Your task to perform on an android device: turn on data saver in the chrome app Image 0: 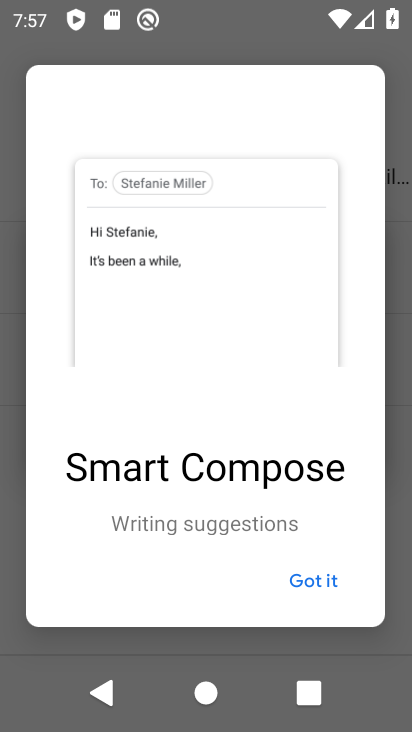
Step 0: press home button
Your task to perform on an android device: turn on data saver in the chrome app Image 1: 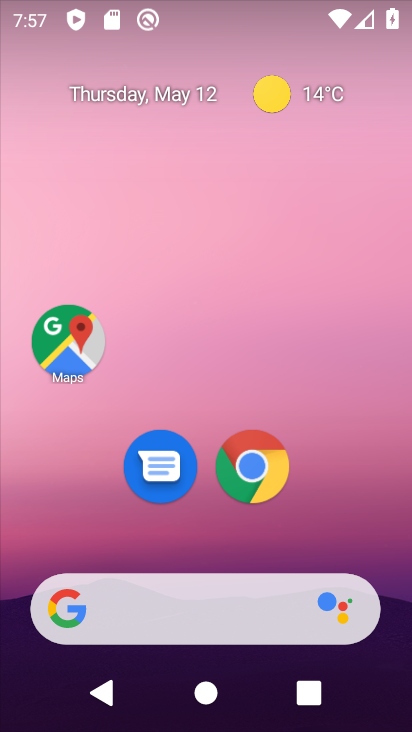
Step 1: click (251, 459)
Your task to perform on an android device: turn on data saver in the chrome app Image 2: 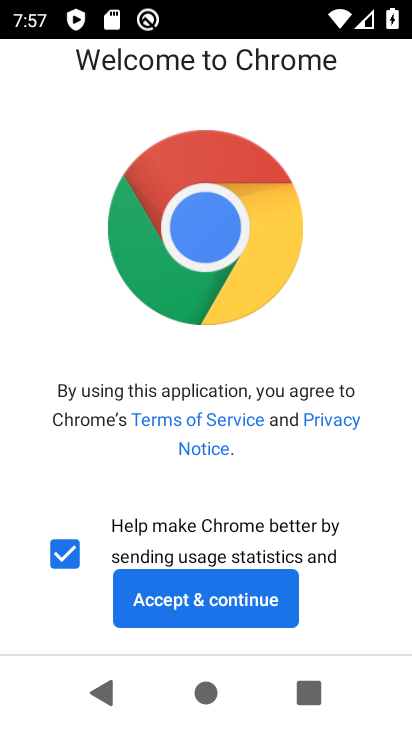
Step 2: click (197, 603)
Your task to perform on an android device: turn on data saver in the chrome app Image 3: 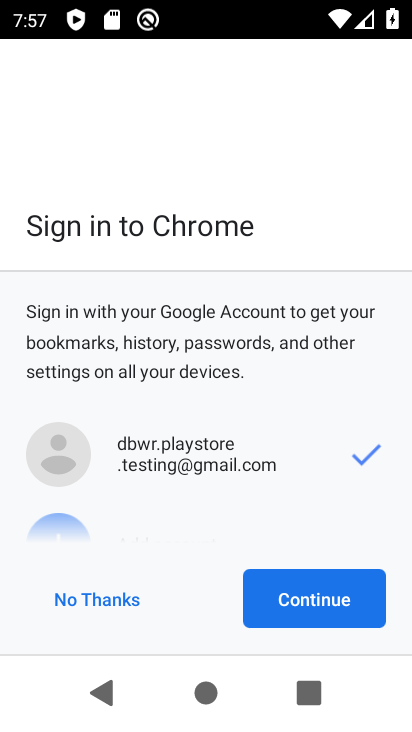
Step 3: click (321, 594)
Your task to perform on an android device: turn on data saver in the chrome app Image 4: 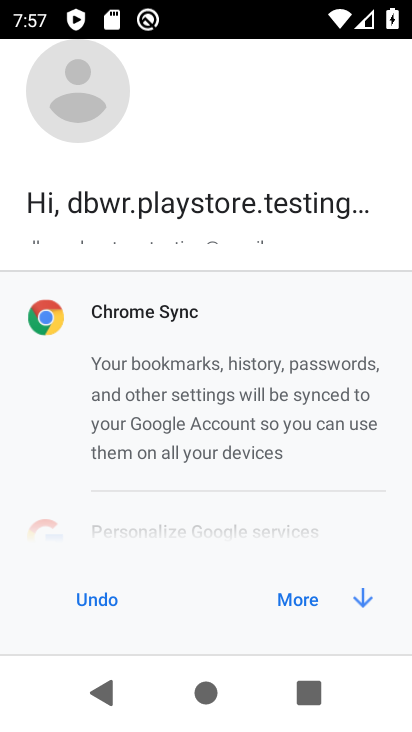
Step 4: click (313, 600)
Your task to perform on an android device: turn on data saver in the chrome app Image 5: 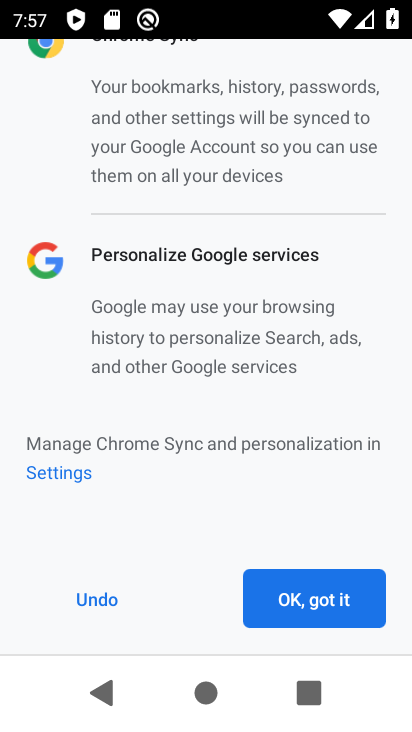
Step 5: click (313, 600)
Your task to perform on an android device: turn on data saver in the chrome app Image 6: 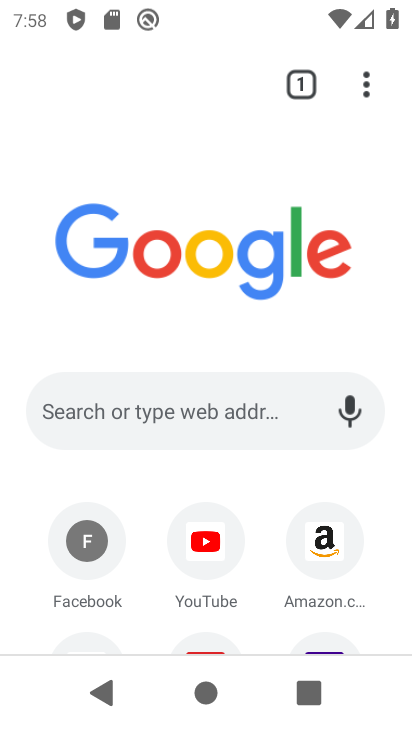
Step 6: click (360, 79)
Your task to perform on an android device: turn on data saver in the chrome app Image 7: 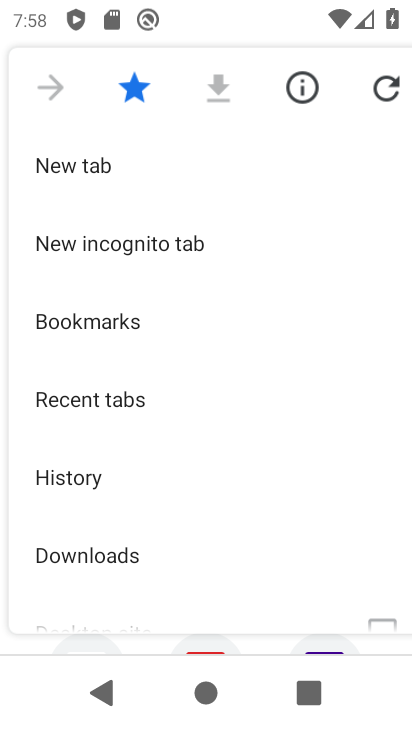
Step 7: drag from (216, 571) to (190, 87)
Your task to perform on an android device: turn on data saver in the chrome app Image 8: 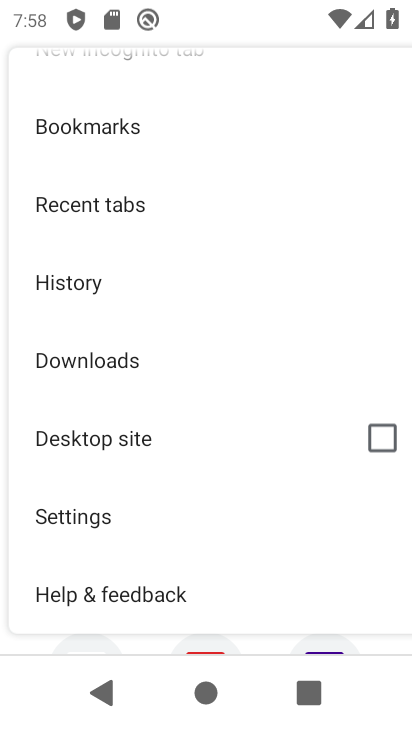
Step 8: click (121, 519)
Your task to perform on an android device: turn on data saver in the chrome app Image 9: 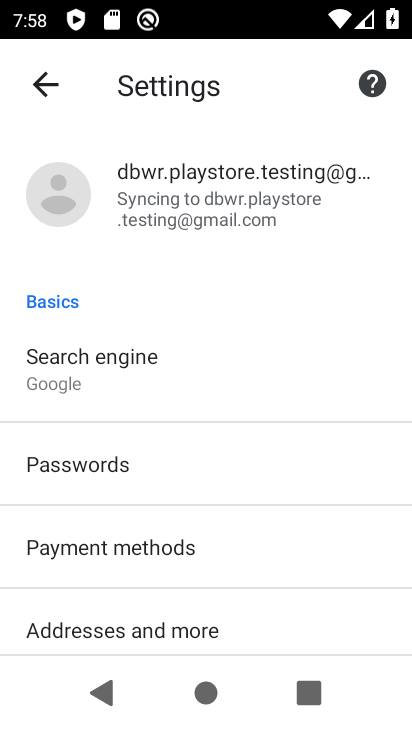
Step 9: drag from (238, 618) to (240, 184)
Your task to perform on an android device: turn on data saver in the chrome app Image 10: 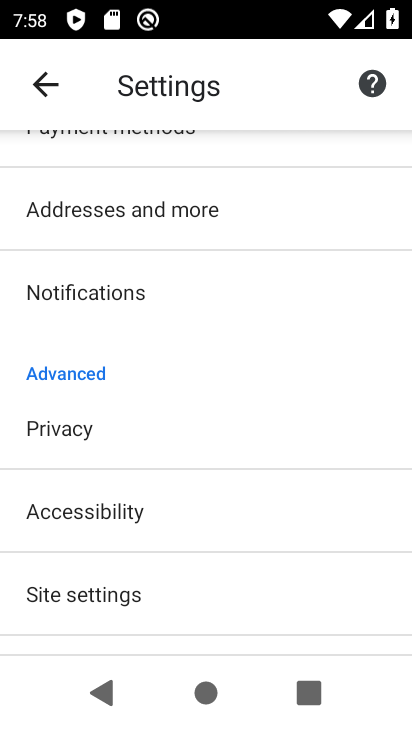
Step 10: drag from (192, 627) to (231, 135)
Your task to perform on an android device: turn on data saver in the chrome app Image 11: 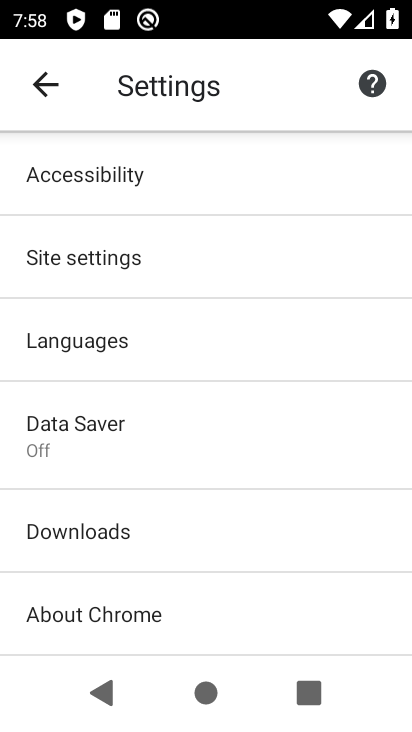
Step 11: click (121, 440)
Your task to perform on an android device: turn on data saver in the chrome app Image 12: 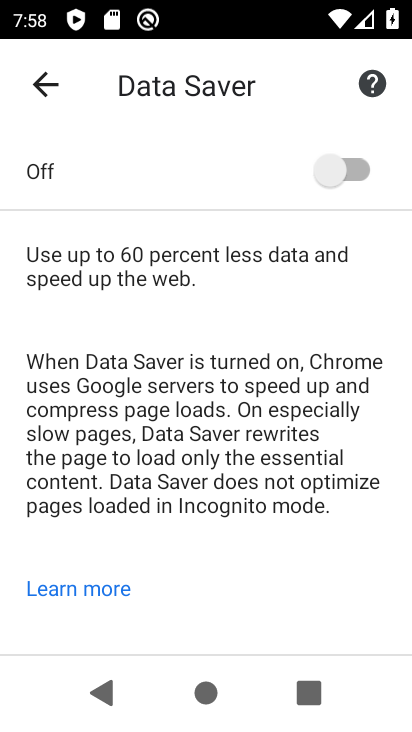
Step 12: click (347, 164)
Your task to perform on an android device: turn on data saver in the chrome app Image 13: 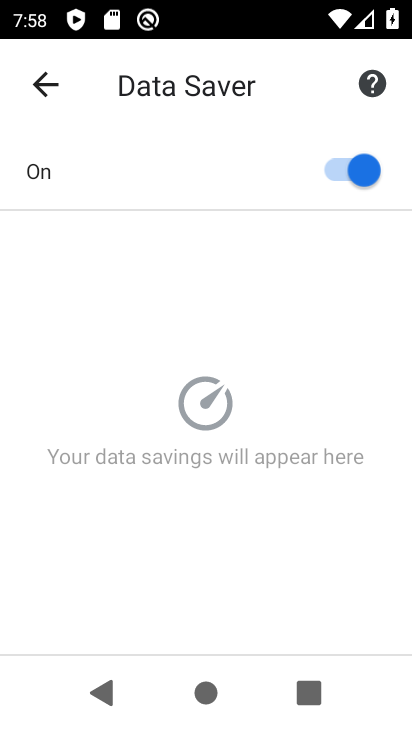
Step 13: task complete